Your task to perform on an android device: see tabs open on other devices in the chrome app Image 0: 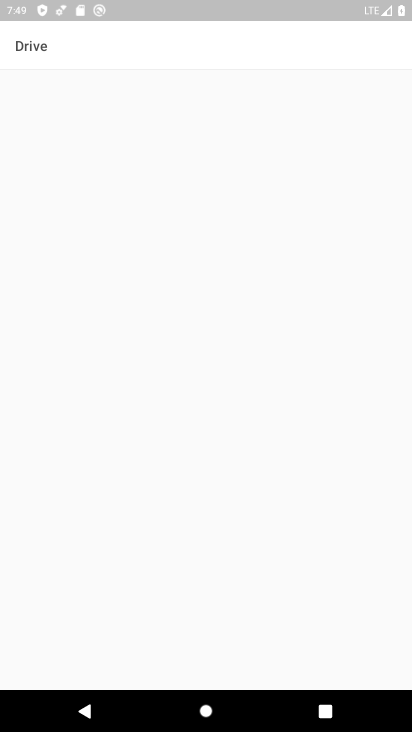
Step 0: press home button
Your task to perform on an android device: see tabs open on other devices in the chrome app Image 1: 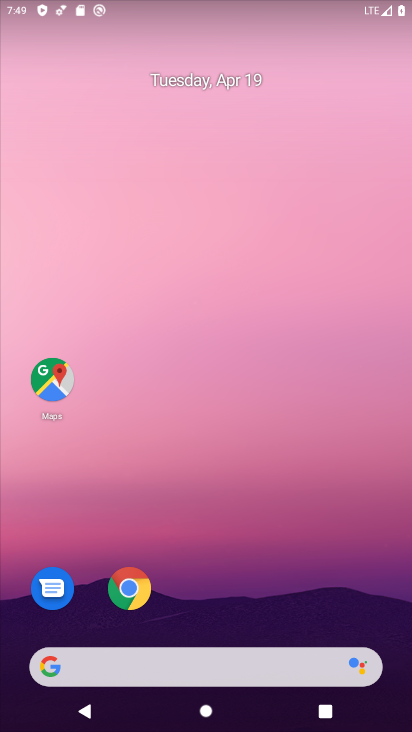
Step 1: click (130, 591)
Your task to perform on an android device: see tabs open on other devices in the chrome app Image 2: 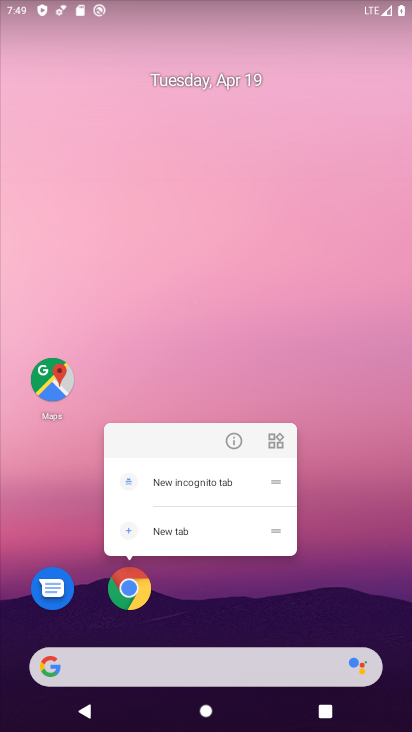
Step 2: click (127, 589)
Your task to perform on an android device: see tabs open on other devices in the chrome app Image 3: 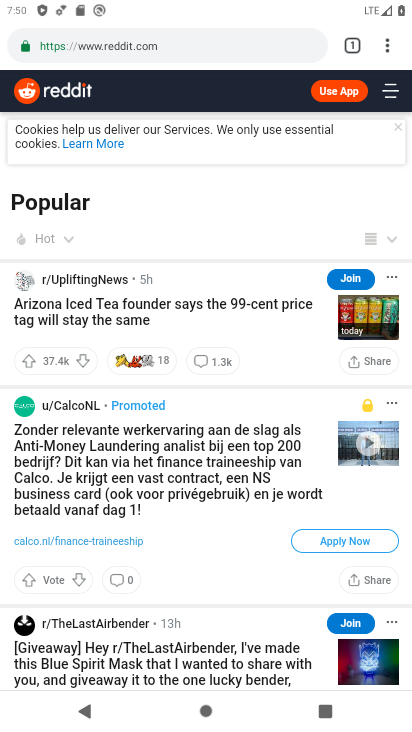
Step 3: click (380, 39)
Your task to perform on an android device: see tabs open on other devices in the chrome app Image 4: 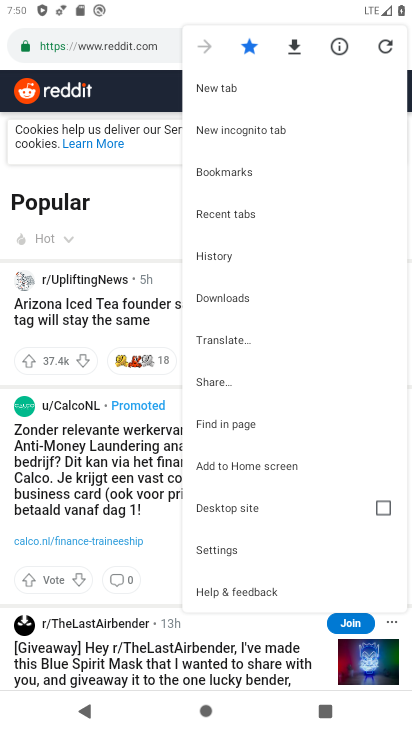
Step 4: click (239, 208)
Your task to perform on an android device: see tabs open on other devices in the chrome app Image 5: 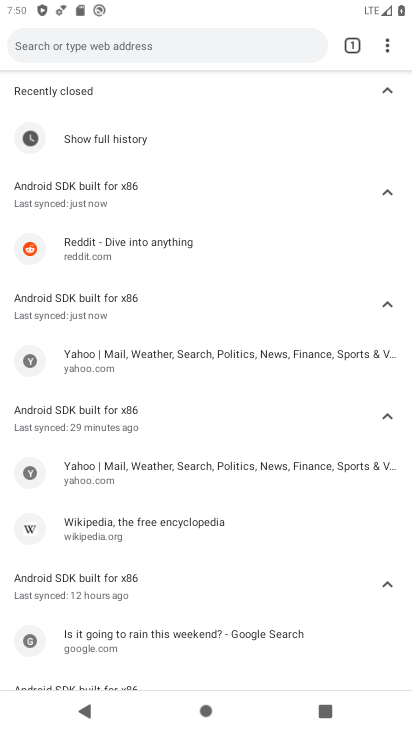
Step 5: task complete